Your task to perform on an android device: toggle pop-ups in chrome Image 0: 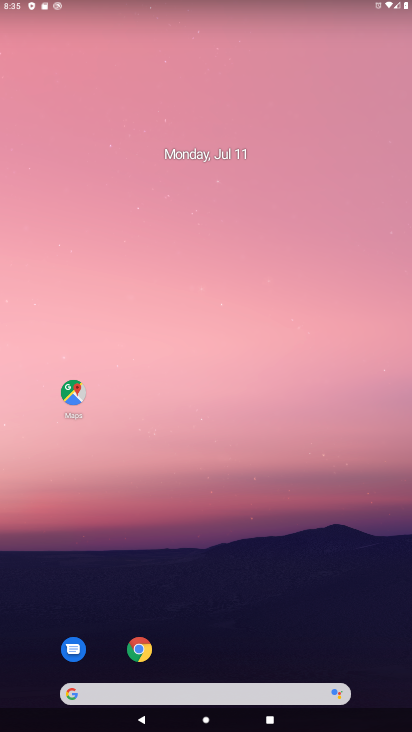
Step 0: click (141, 648)
Your task to perform on an android device: toggle pop-ups in chrome Image 1: 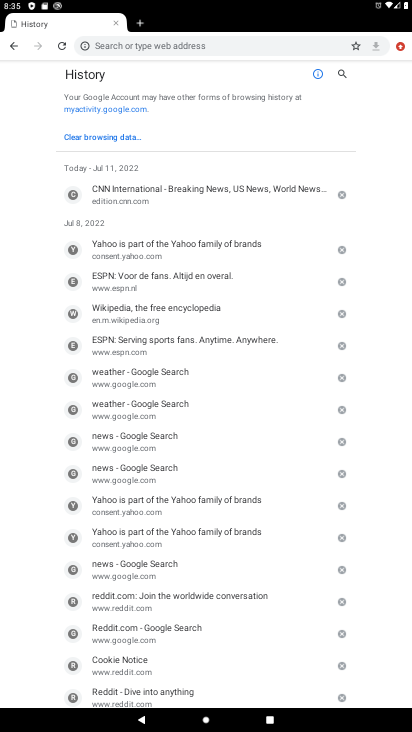
Step 1: click (400, 45)
Your task to perform on an android device: toggle pop-ups in chrome Image 2: 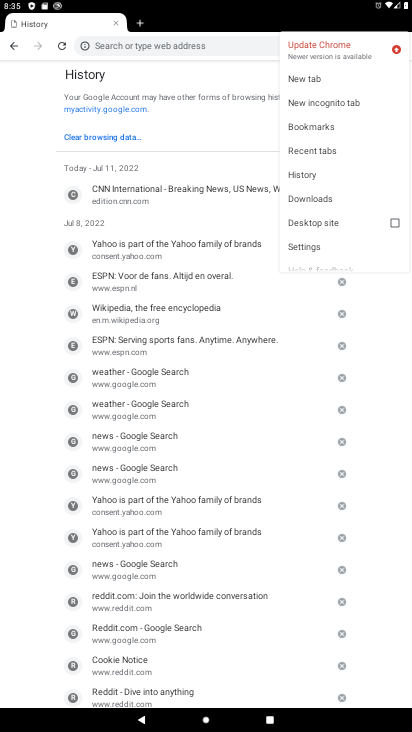
Step 2: click (312, 246)
Your task to perform on an android device: toggle pop-ups in chrome Image 3: 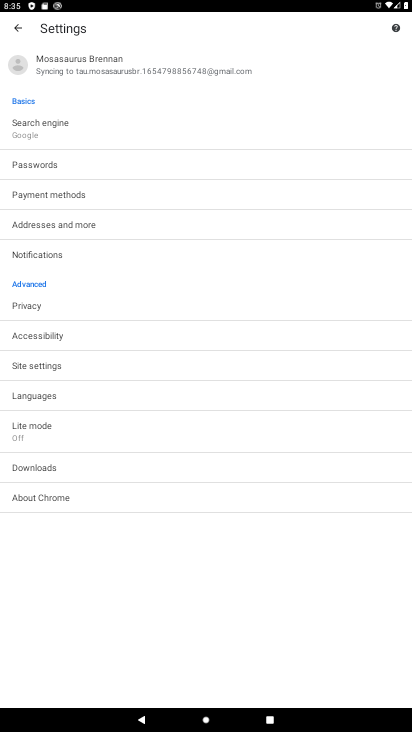
Step 3: click (50, 365)
Your task to perform on an android device: toggle pop-ups in chrome Image 4: 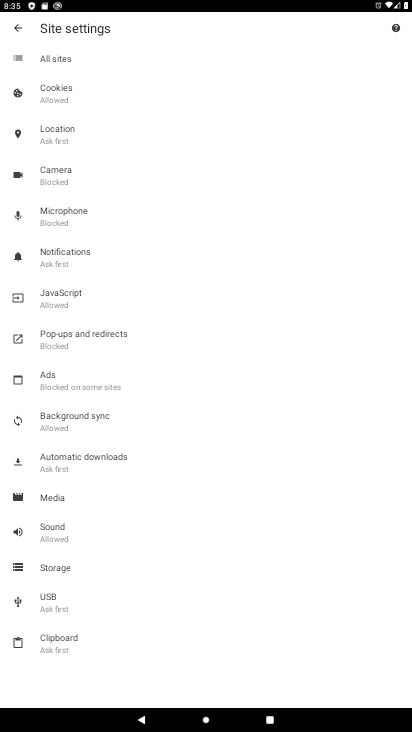
Step 4: click (77, 336)
Your task to perform on an android device: toggle pop-ups in chrome Image 5: 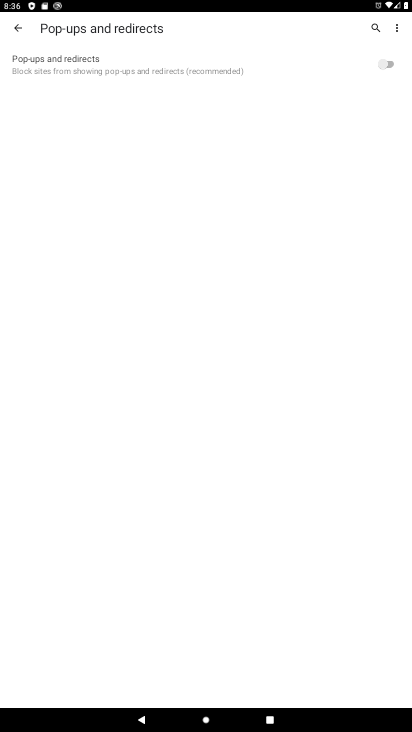
Step 5: click (381, 65)
Your task to perform on an android device: toggle pop-ups in chrome Image 6: 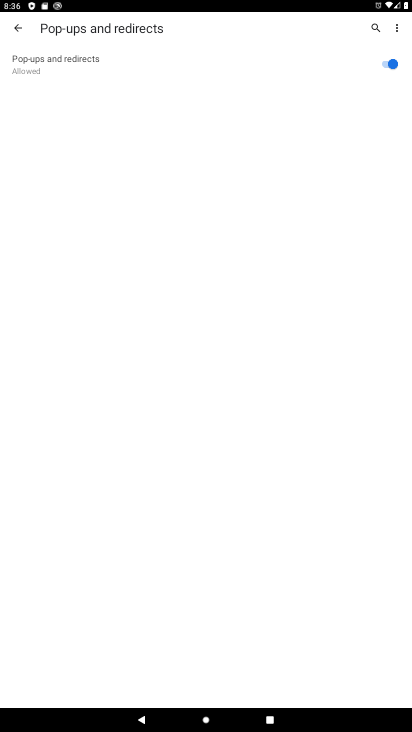
Step 6: task complete